Your task to perform on an android device: Show me the alarms in the clock app Image 0: 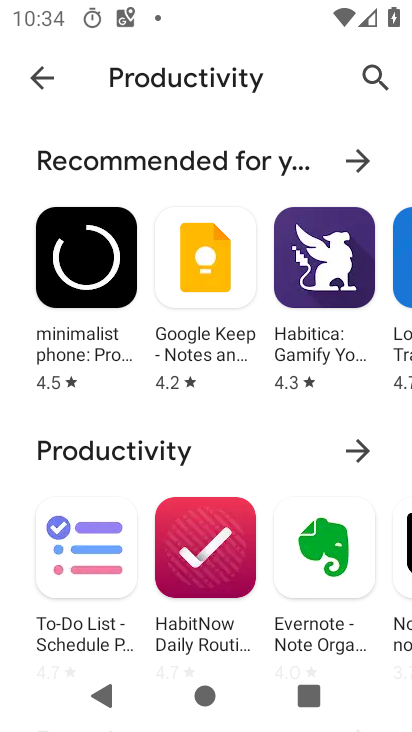
Step 0: press home button
Your task to perform on an android device: Show me the alarms in the clock app Image 1: 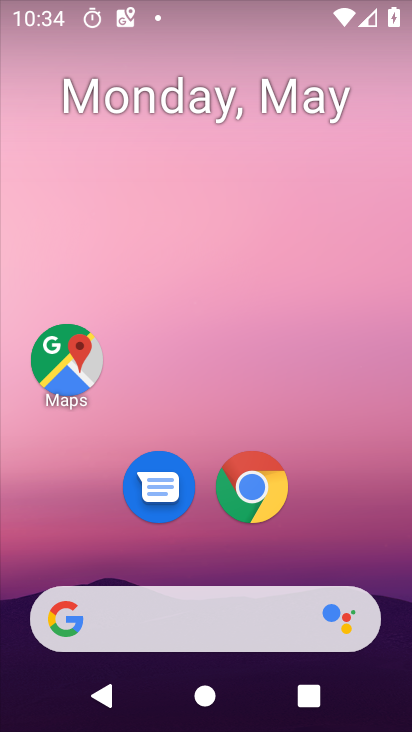
Step 1: drag from (202, 570) to (318, 42)
Your task to perform on an android device: Show me the alarms in the clock app Image 2: 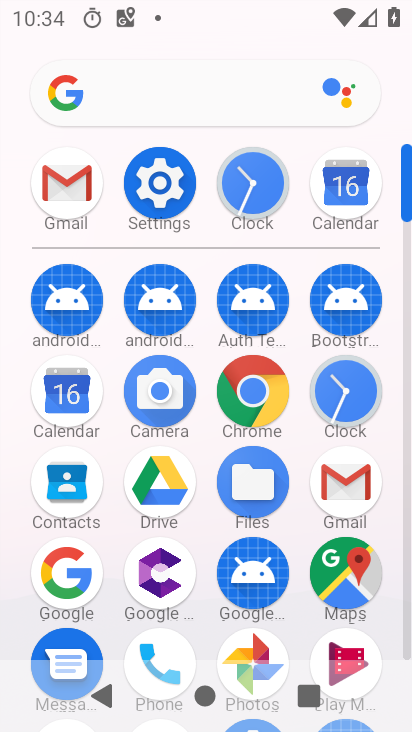
Step 2: click (343, 412)
Your task to perform on an android device: Show me the alarms in the clock app Image 3: 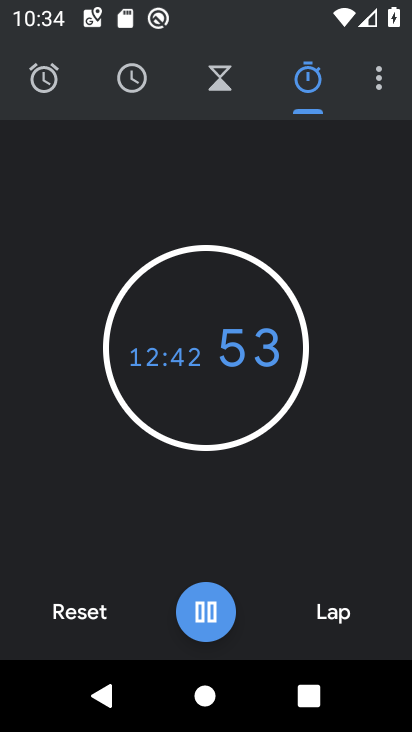
Step 3: click (56, 81)
Your task to perform on an android device: Show me the alarms in the clock app Image 4: 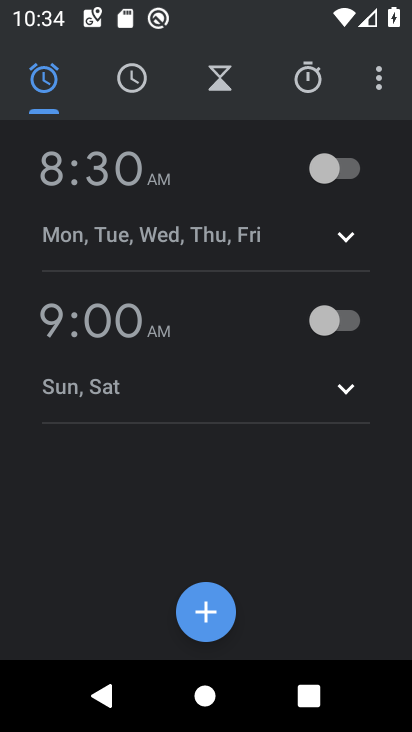
Step 4: task complete